Your task to perform on an android device: Check the weather Image 0: 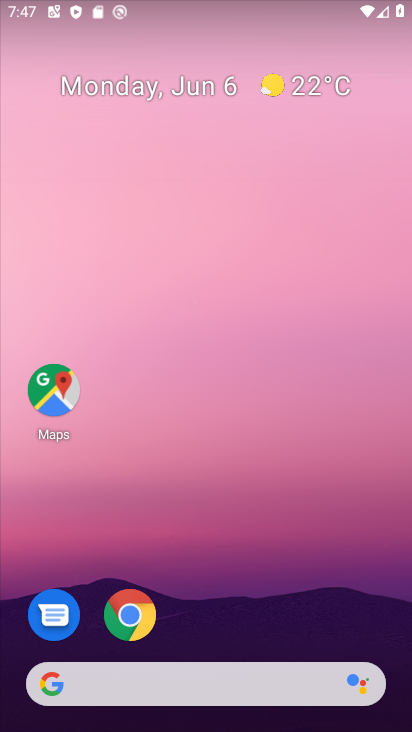
Step 0: drag from (0, 273) to (386, 295)
Your task to perform on an android device: Check the weather Image 1: 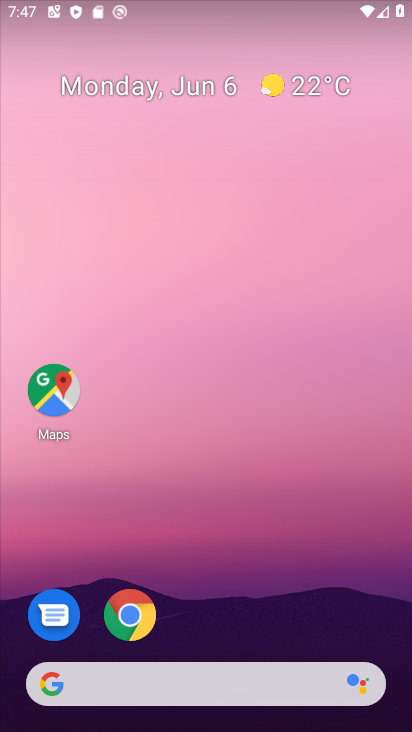
Step 1: drag from (0, 201) to (406, 221)
Your task to perform on an android device: Check the weather Image 2: 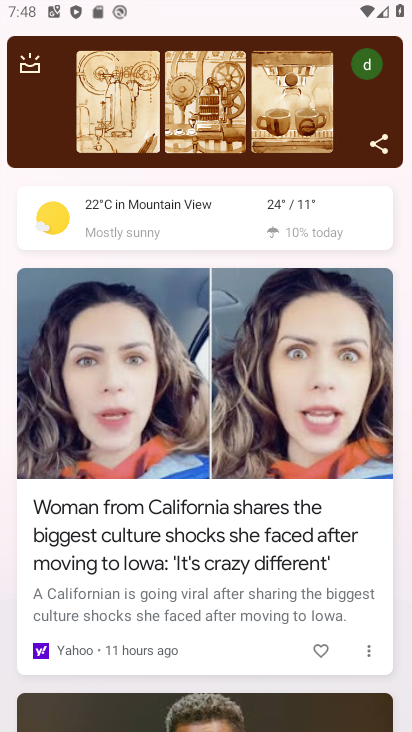
Step 2: click (253, 204)
Your task to perform on an android device: Check the weather Image 3: 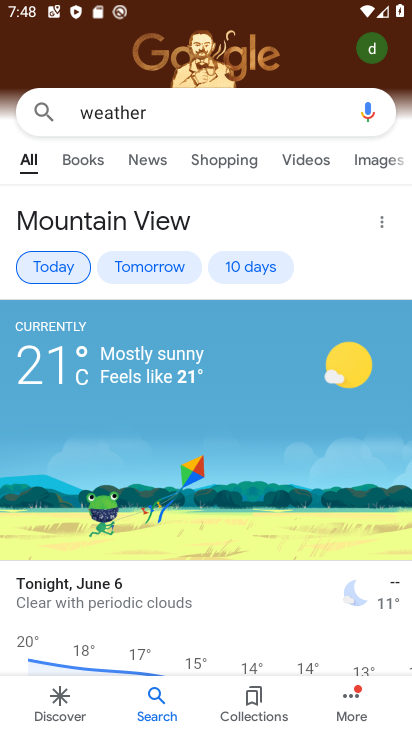
Step 3: task complete